Your task to perform on an android device: Open my contact list Image 0: 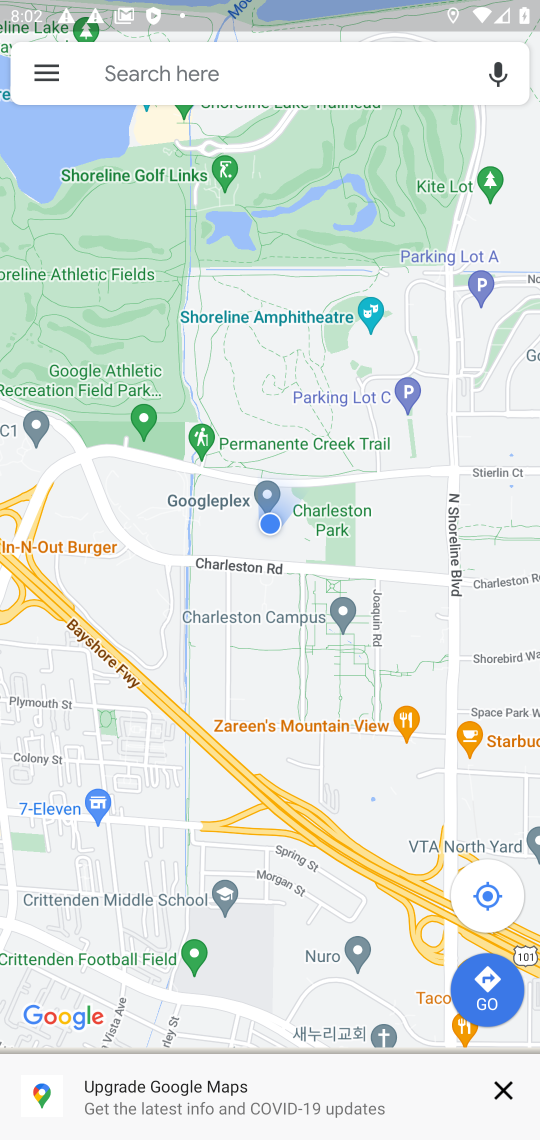
Step 0: press home button
Your task to perform on an android device: Open my contact list Image 1: 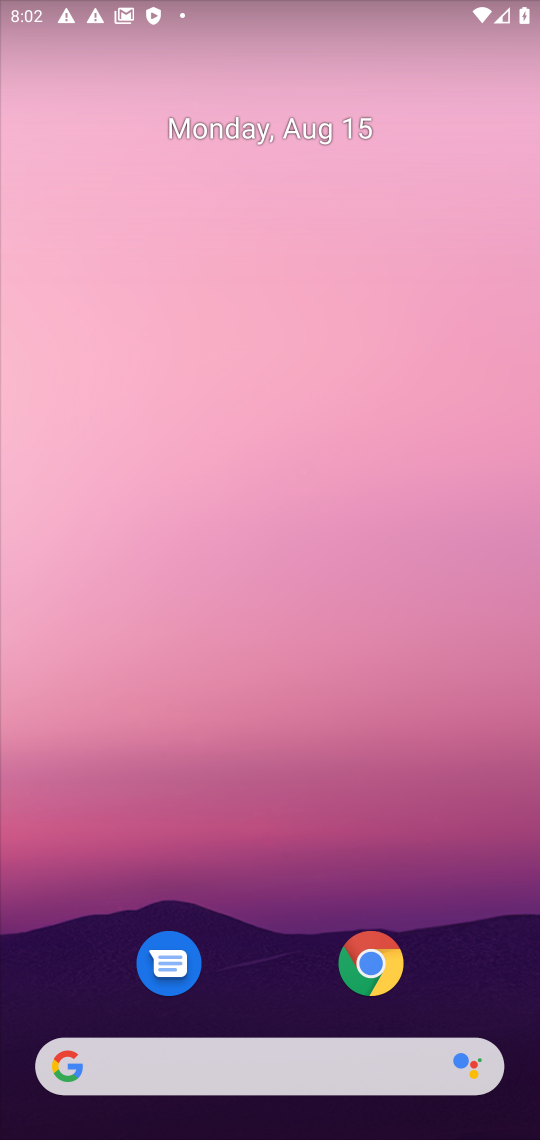
Step 1: drag from (223, 825) to (194, 301)
Your task to perform on an android device: Open my contact list Image 2: 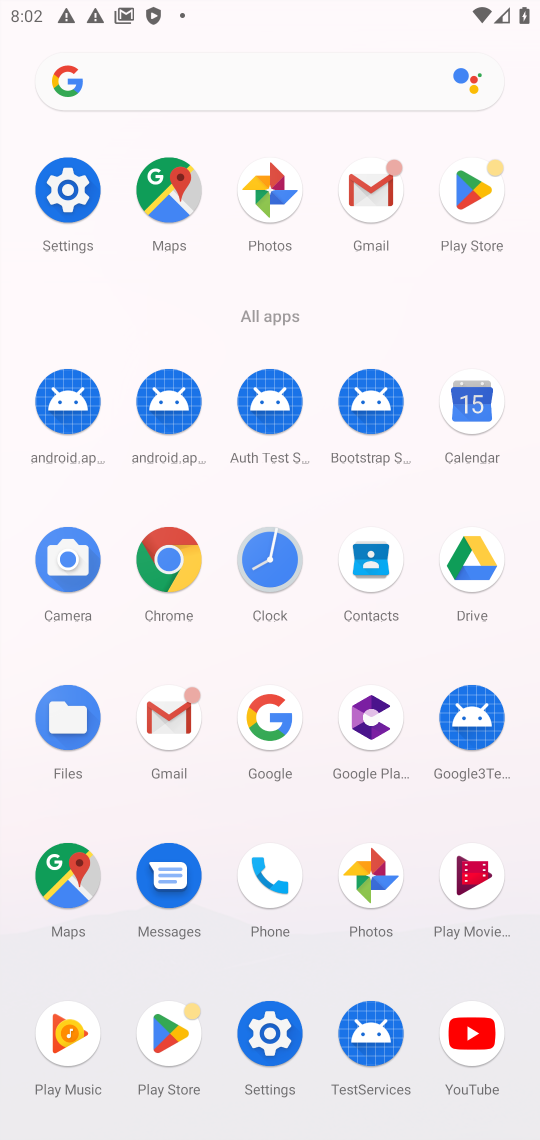
Step 2: click (380, 590)
Your task to perform on an android device: Open my contact list Image 3: 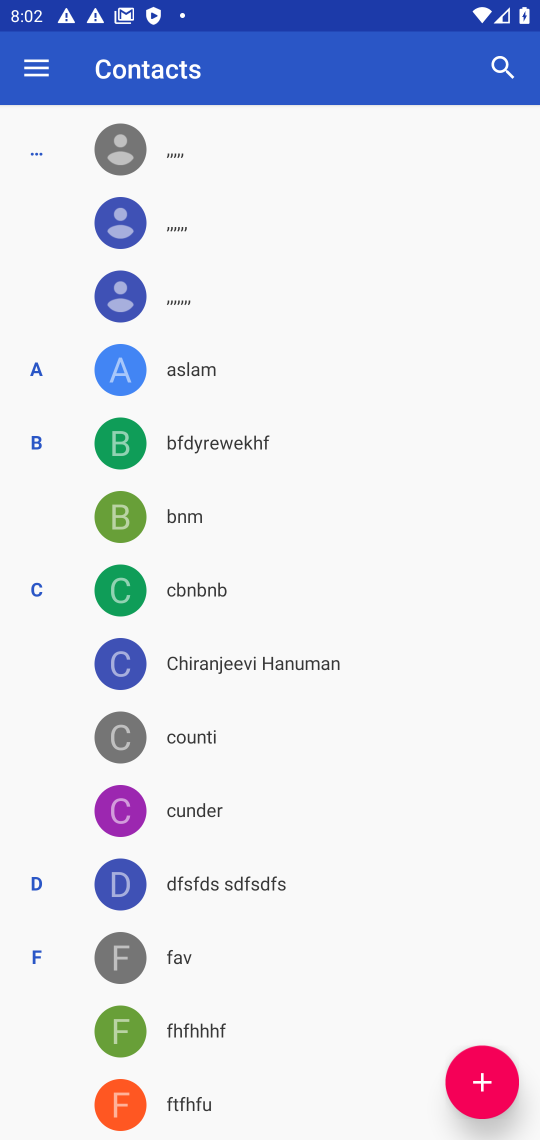
Step 3: task complete